Your task to perform on an android device: What is the recent news? Image 0: 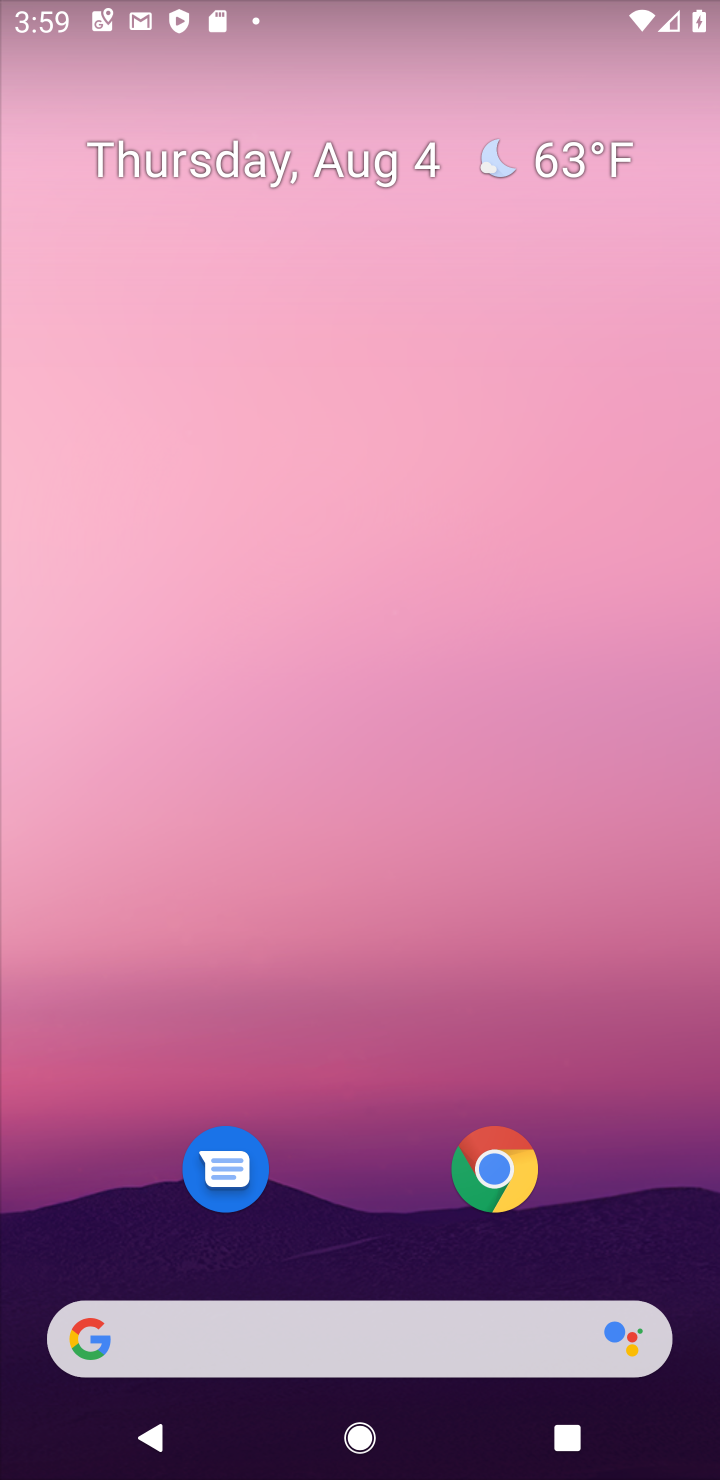
Step 0: click (300, 1324)
Your task to perform on an android device: What is the recent news? Image 1: 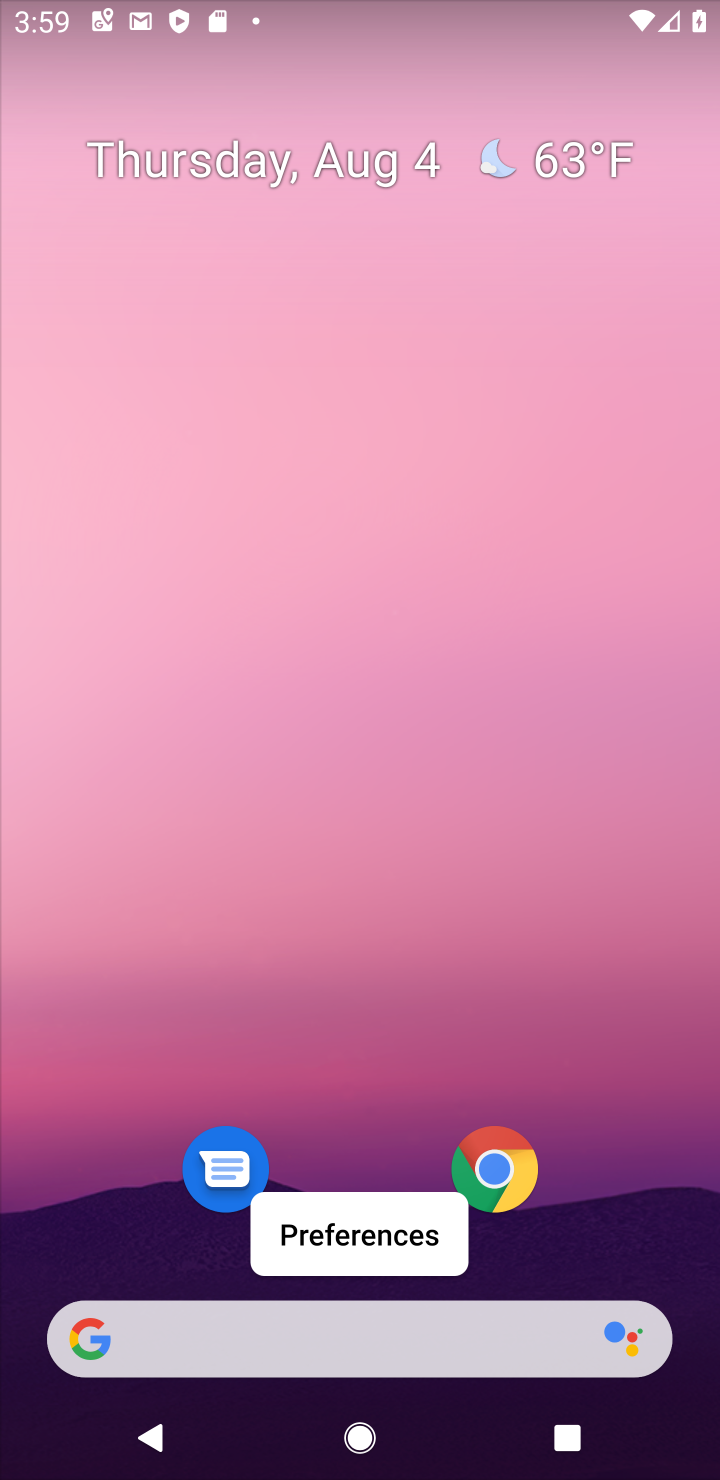
Step 1: click (418, 1323)
Your task to perform on an android device: What is the recent news? Image 2: 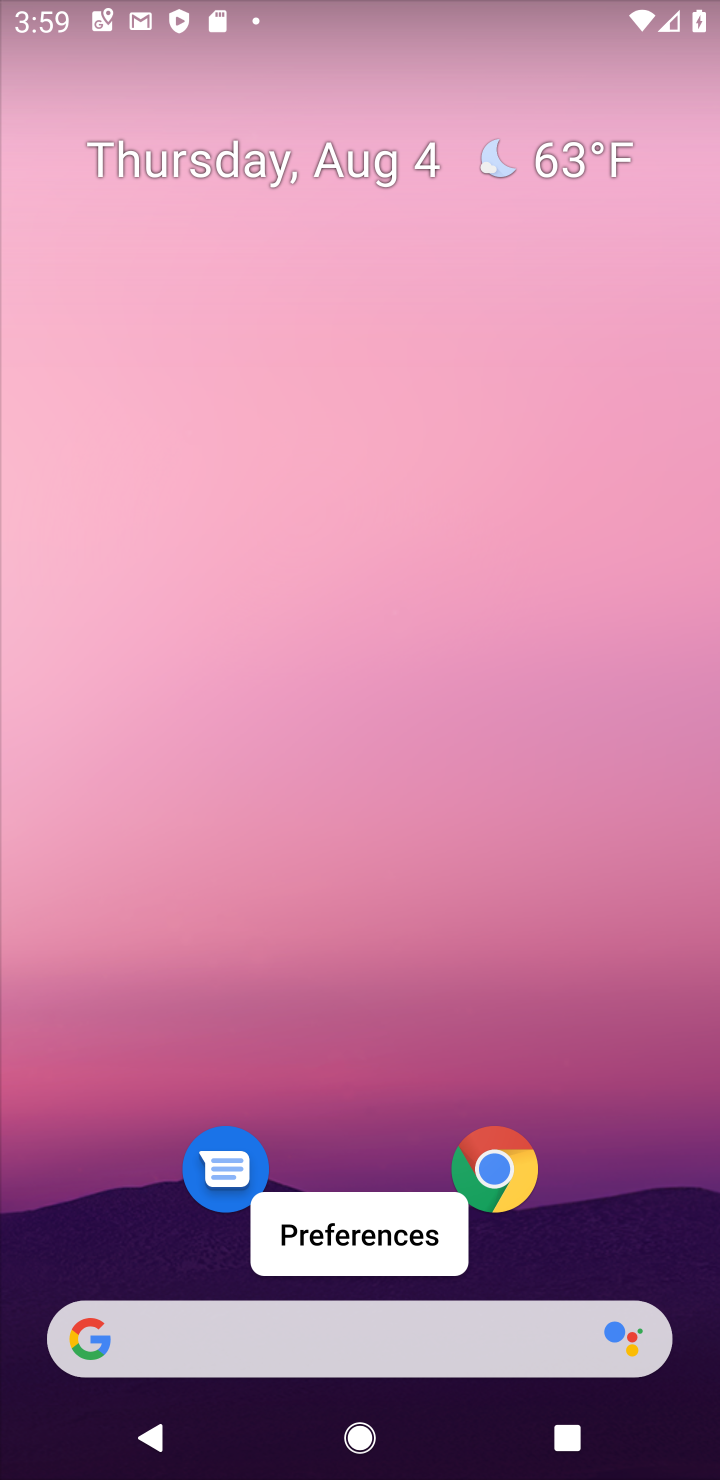
Step 2: click (371, 1375)
Your task to perform on an android device: What is the recent news? Image 3: 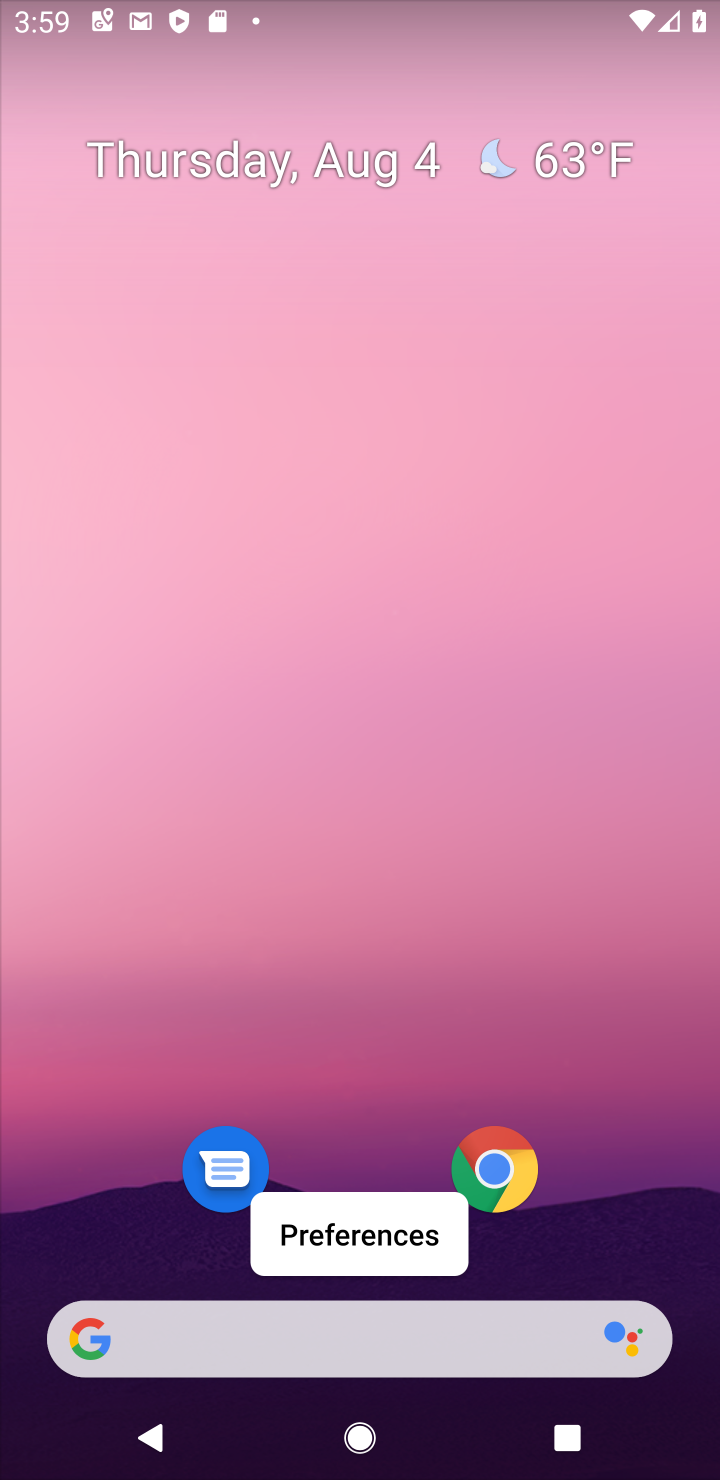
Step 3: click (438, 1328)
Your task to perform on an android device: What is the recent news? Image 4: 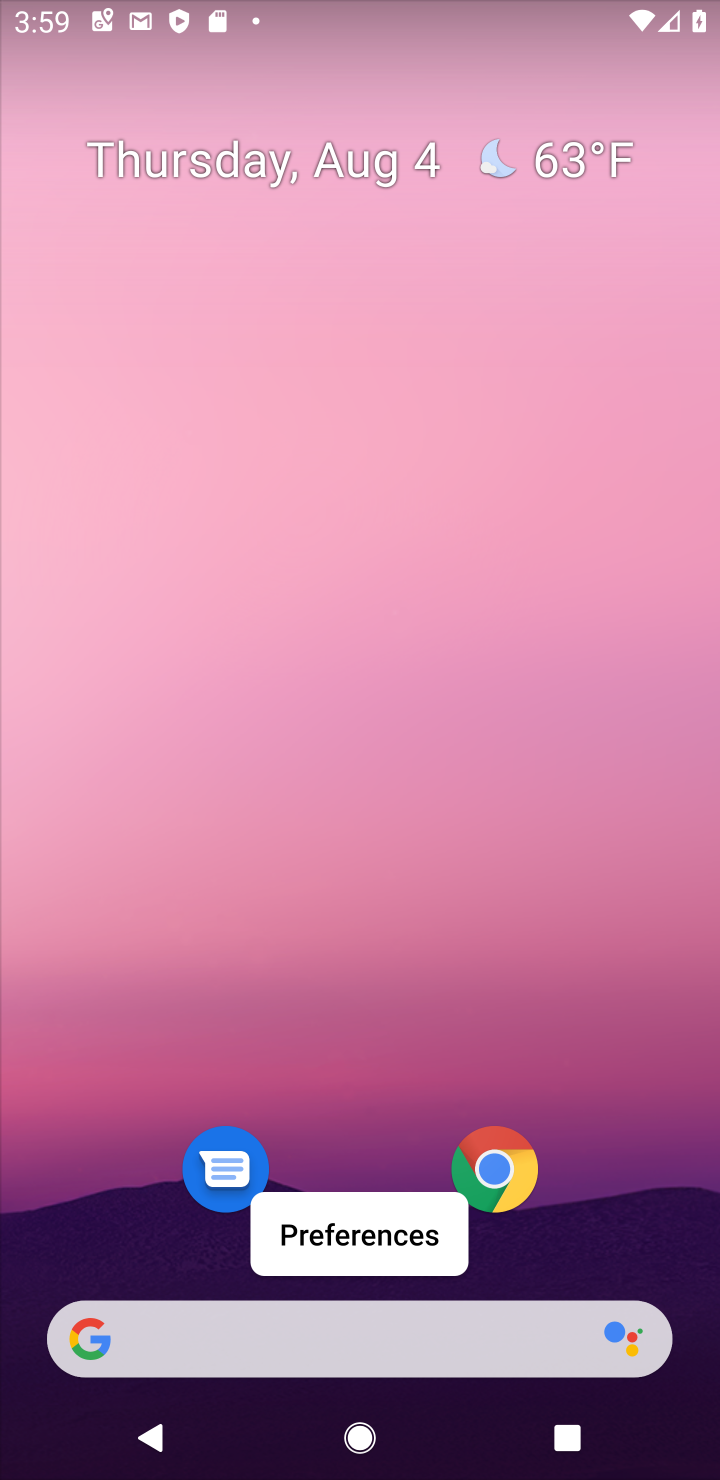
Step 4: click (438, 1328)
Your task to perform on an android device: What is the recent news? Image 5: 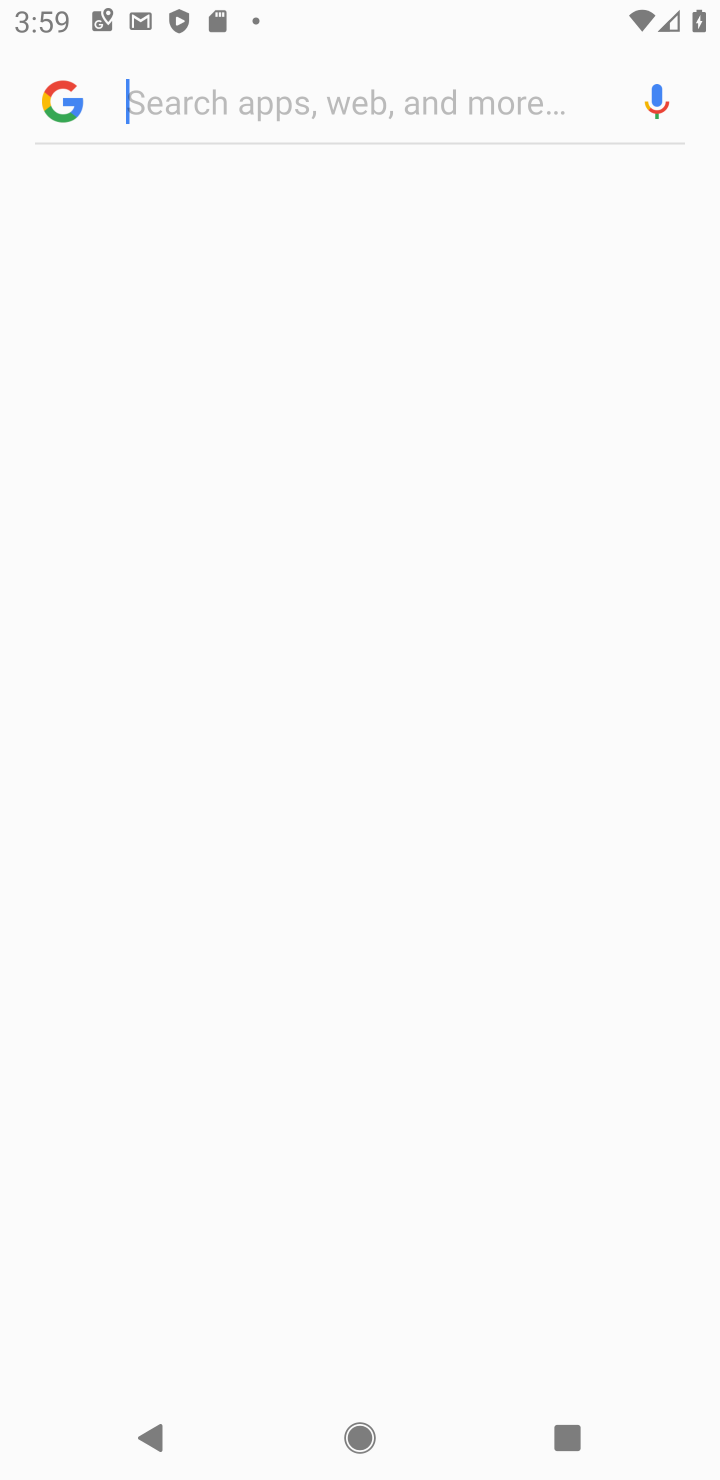
Step 5: click (217, 1362)
Your task to perform on an android device: What is the recent news? Image 6: 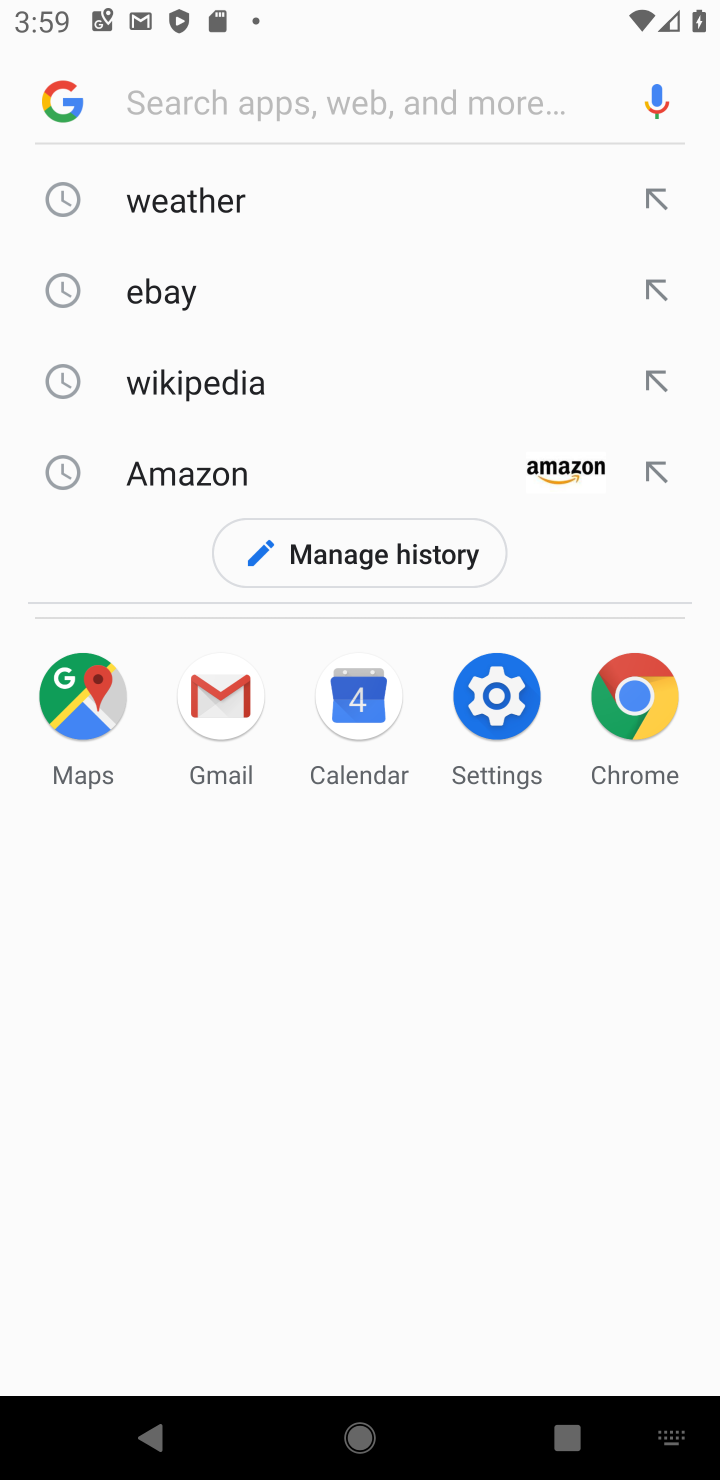
Step 6: type "recent news"
Your task to perform on an android device: What is the recent news? Image 7: 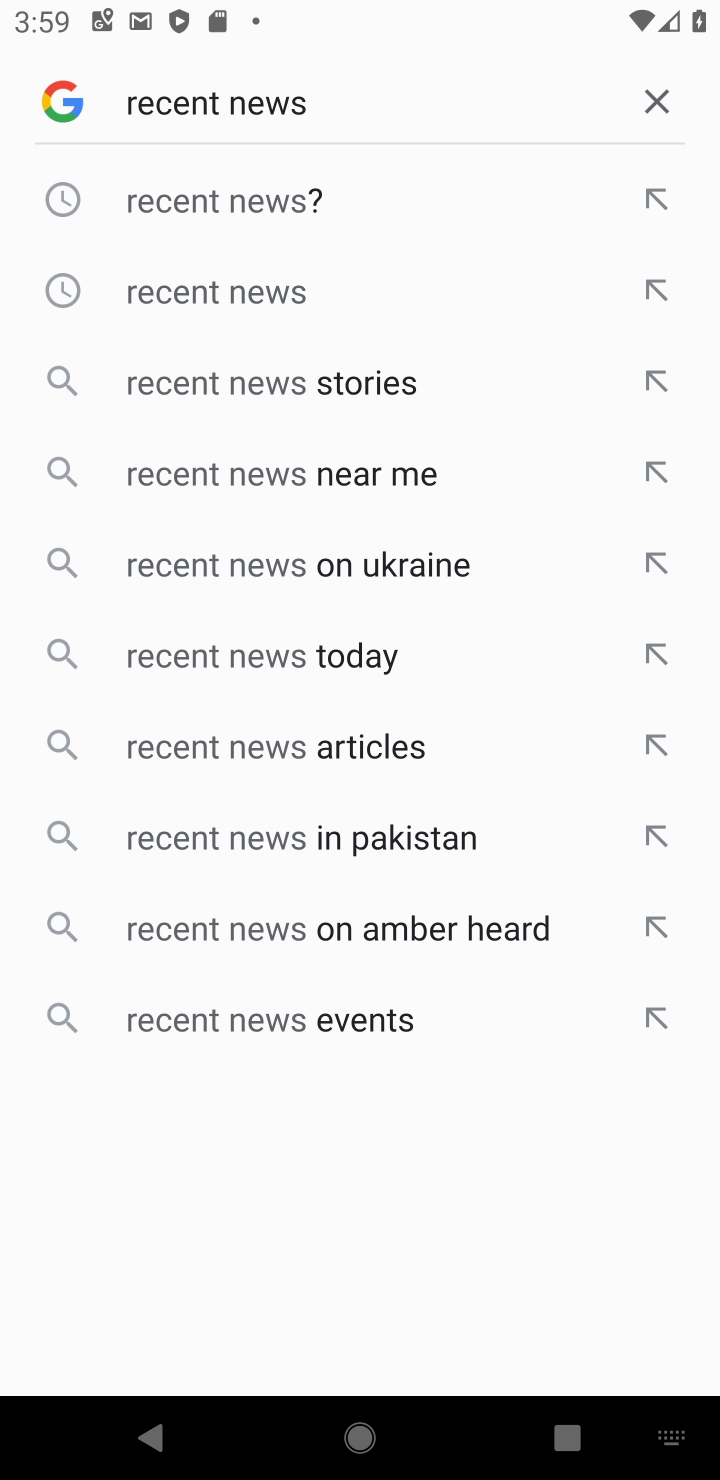
Step 7: click (184, 269)
Your task to perform on an android device: What is the recent news? Image 8: 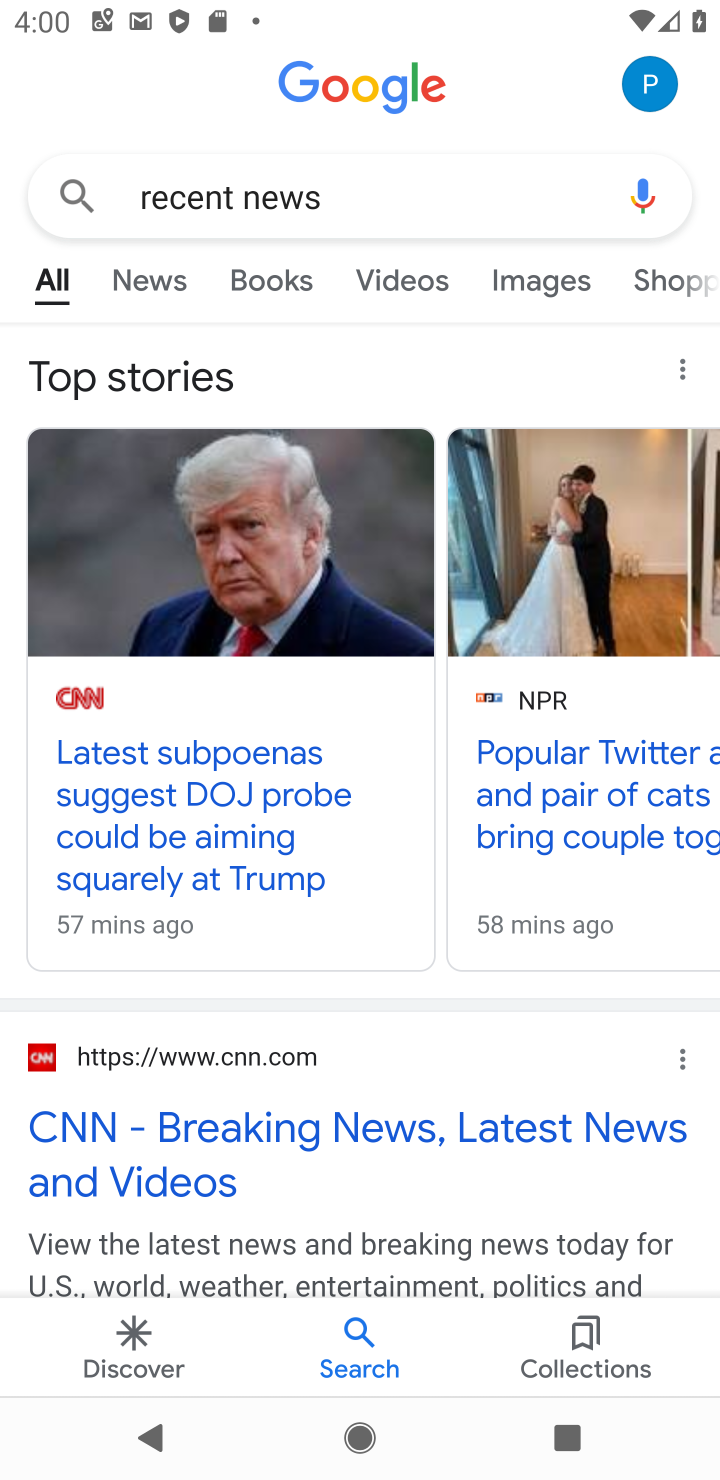
Step 8: task complete